Your task to perform on an android device: Search for vegetarian restaurants on Maps Image 0: 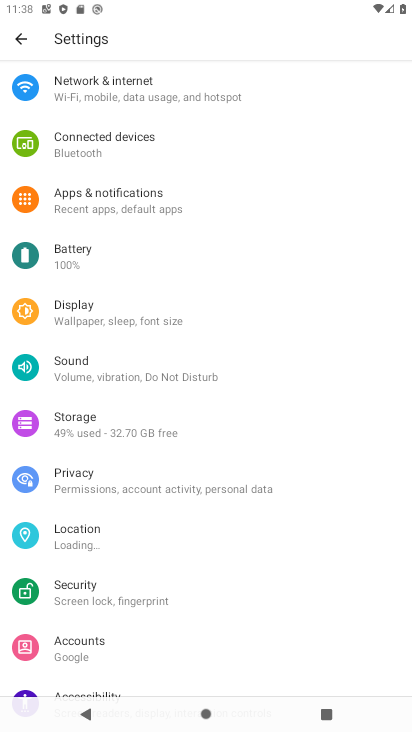
Step 0: press home button
Your task to perform on an android device: Search for vegetarian restaurants on Maps Image 1: 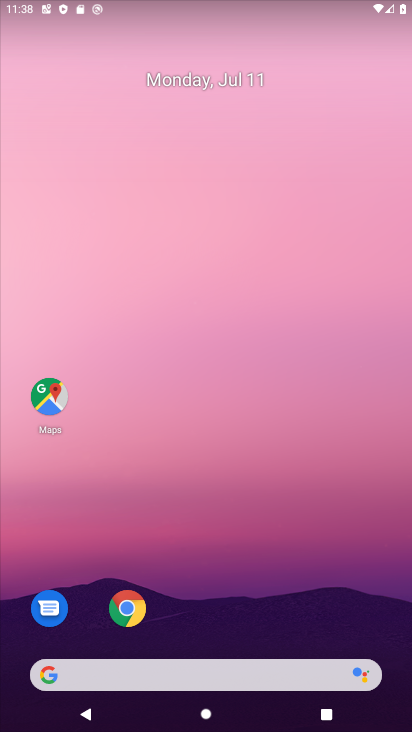
Step 1: click (62, 388)
Your task to perform on an android device: Search for vegetarian restaurants on Maps Image 2: 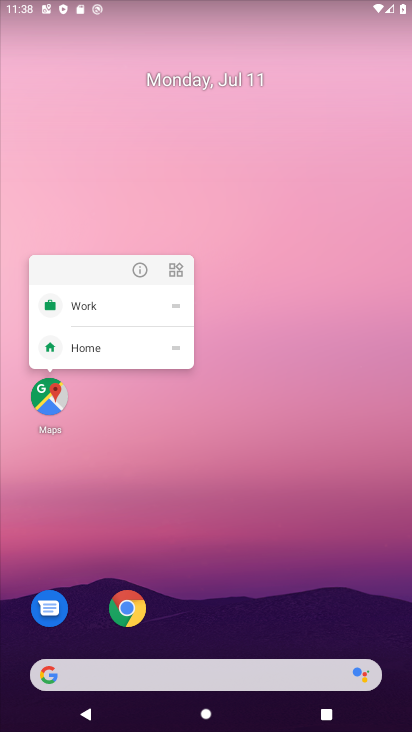
Step 2: click (53, 401)
Your task to perform on an android device: Search for vegetarian restaurants on Maps Image 3: 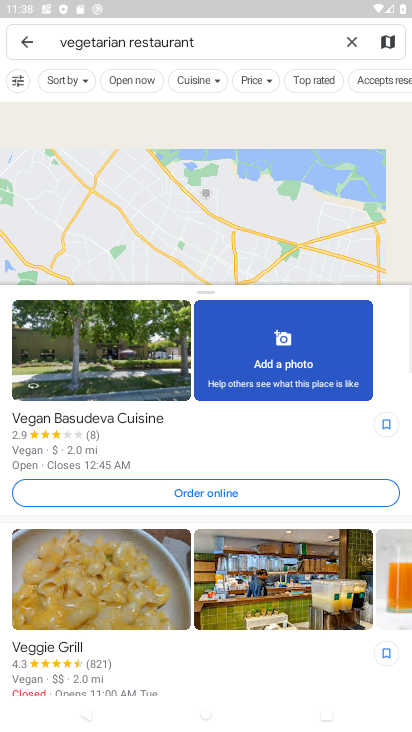
Step 3: task complete